Your task to perform on an android device: Go to privacy settings Image 0: 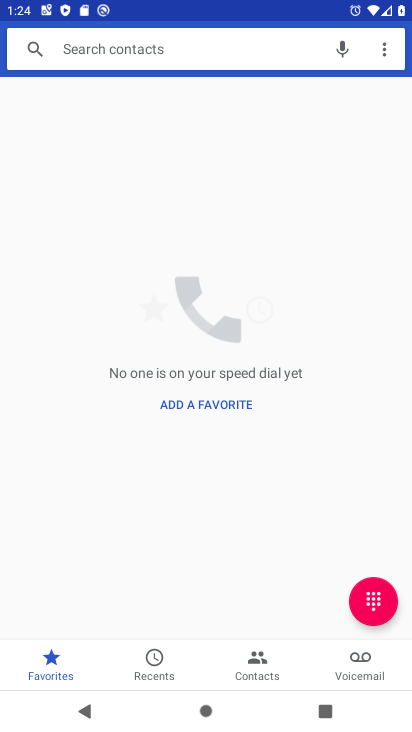
Step 0: press home button
Your task to perform on an android device: Go to privacy settings Image 1: 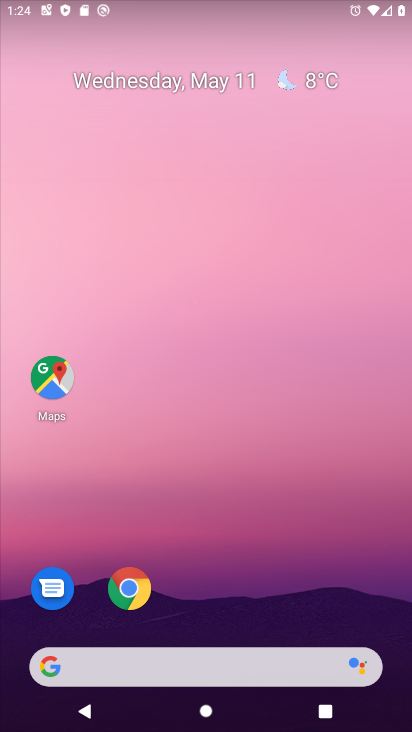
Step 1: drag from (355, 628) to (373, 57)
Your task to perform on an android device: Go to privacy settings Image 2: 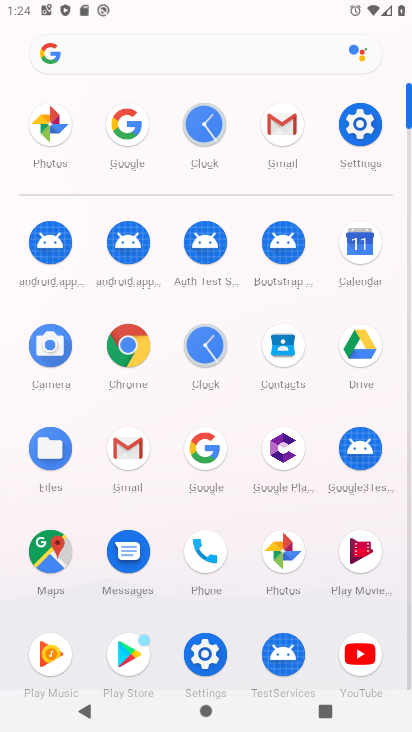
Step 2: click (361, 133)
Your task to perform on an android device: Go to privacy settings Image 3: 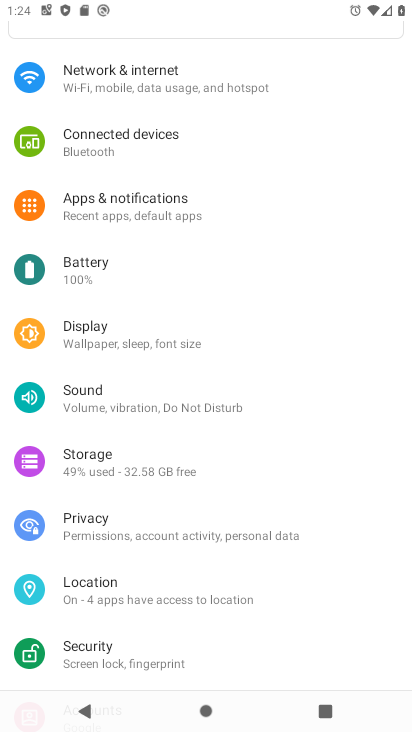
Step 3: click (99, 529)
Your task to perform on an android device: Go to privacy settings Image 4: 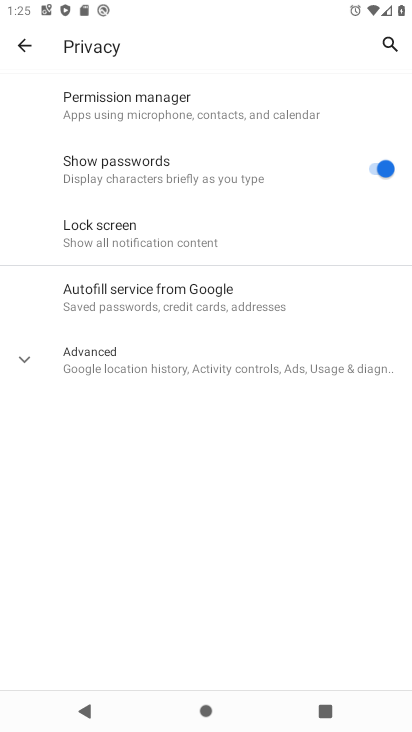
Step 4: task complete